Your task to perform on an android device: turn off notifications in google photos Image 0: 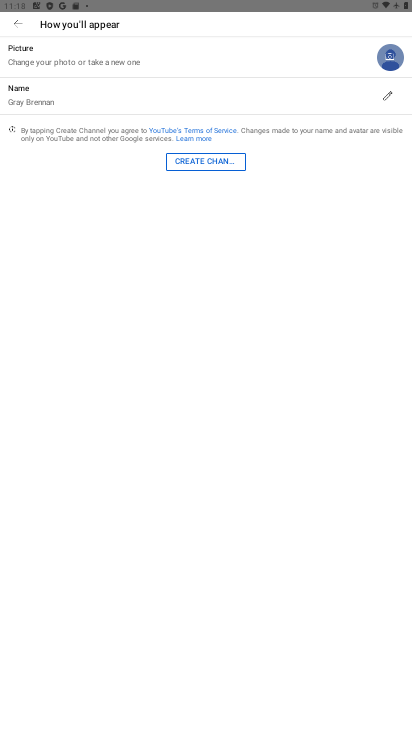
Step 0: press home button
Your task to perform on an android device: turn off notifications in google photos Image 1: 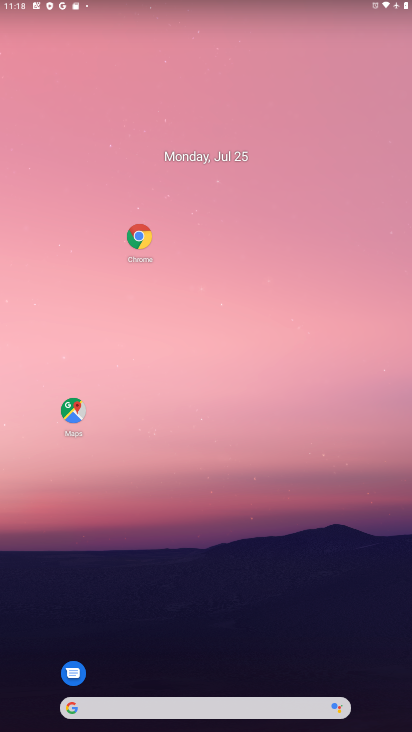
Step 1: drag from (286, 652) to (273, 142)
Your task to perform on an android device: turn off notifications in google photos Image 2: 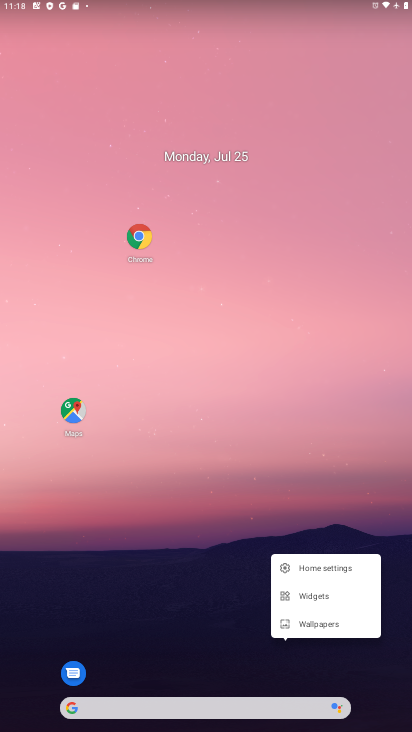
Step 2: click (270, 337)
Your task to perform on an android device: turn off notifications in google photos Image 3: 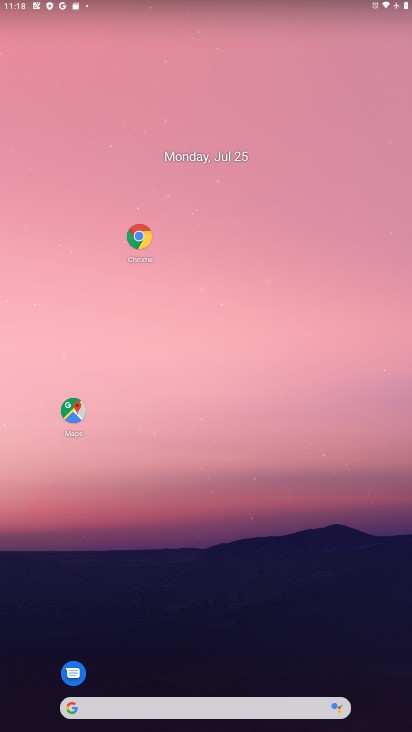
Step 3: drag from (222, 677) to (264, 89)
Your task to perform on an android device: turn off notifications in google photos Image 4: 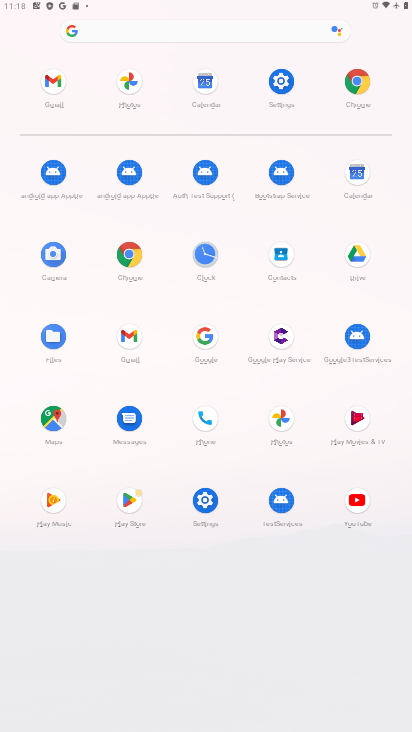
Step 4: click (135, 95)
Your task to perform on an android device: turn off notifications in google photos Image 5: 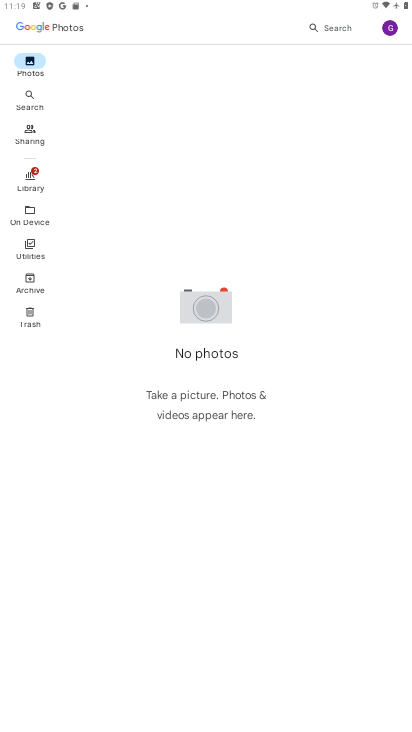
Step 5: task complete